Your task to perform on an android device: Open Chrome and go to the settings page Image 0: 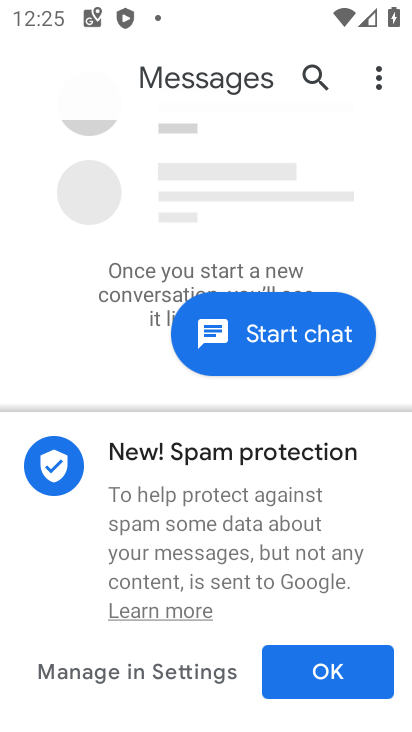
Step 0: press home button
Your task to perform on an android device: Open Chrome and go to the settings page Image 1: 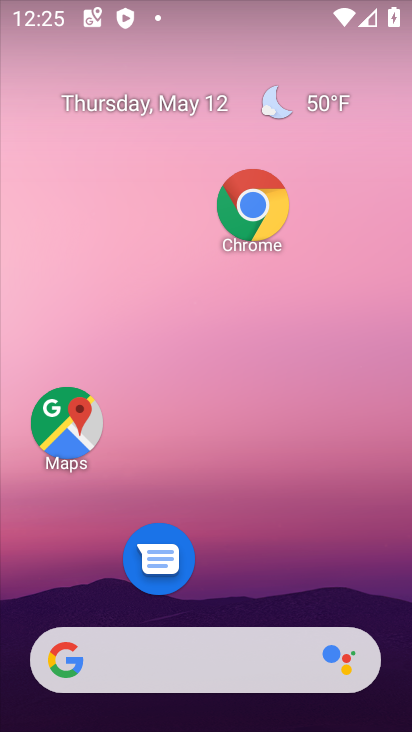
Step 1: click (265, 241)
Your task to perform on an android device: Open Chrome and go to the settings page Image 2: 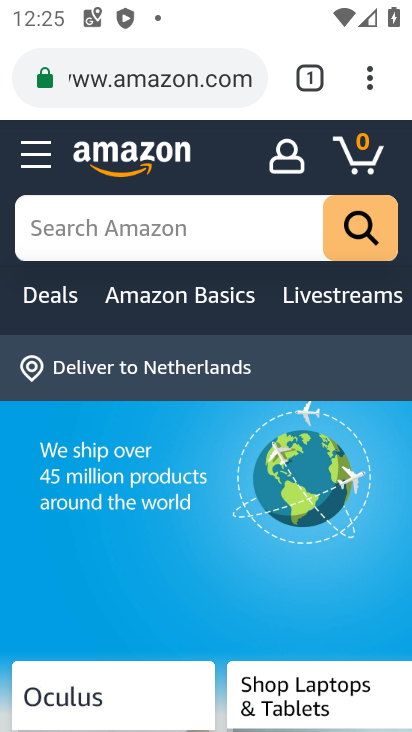
Step 2: click (367, 80)
Your task to perform on an android device: Open Chrome and go to the settings page Image 3: 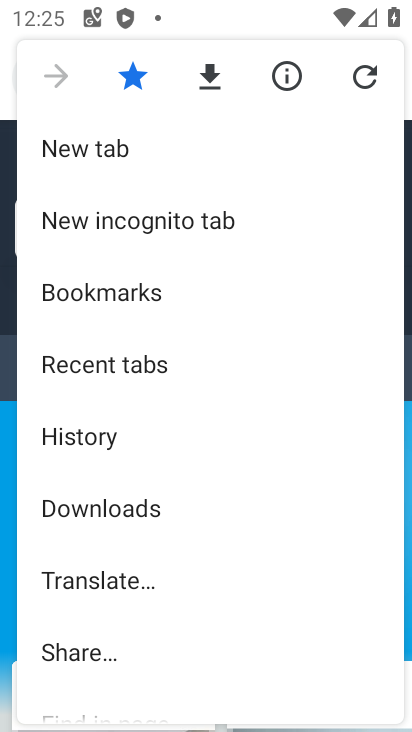
Step 3: drag from (100, 590) to (135, 234)
Your task to perform on an android device: Open Chrome and go to the settings page Image 4: 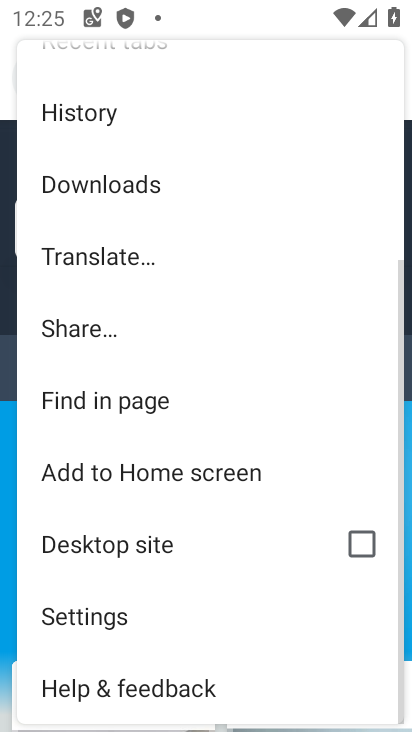
Step 4: click (85, 620)
Your task to perform on an android device: Open Chrome and go to the settings page Image 5: 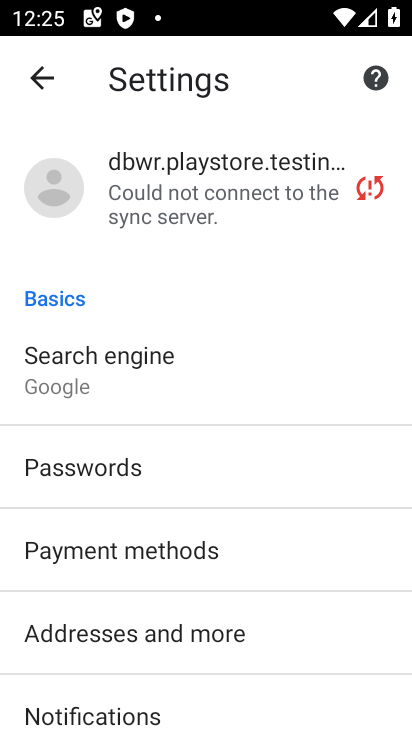
Step 5: task complete